Your task to perform on an android device: turn off location Image 0: 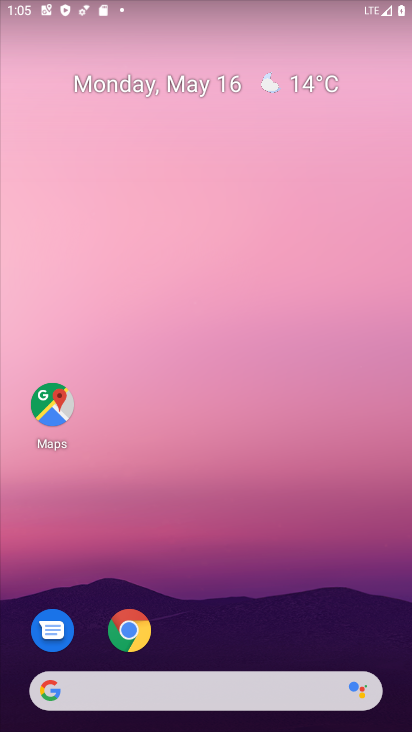
Step 0: drag from (328, 634) to (306, 79)
Your task to perform on an android device: turn off location Image 1: 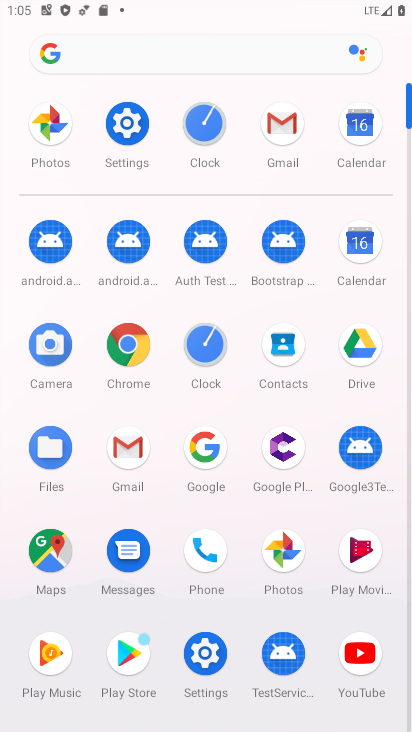
Step 1: click (120, 120)
Your task to perform on an android device: turn off location Image 2: 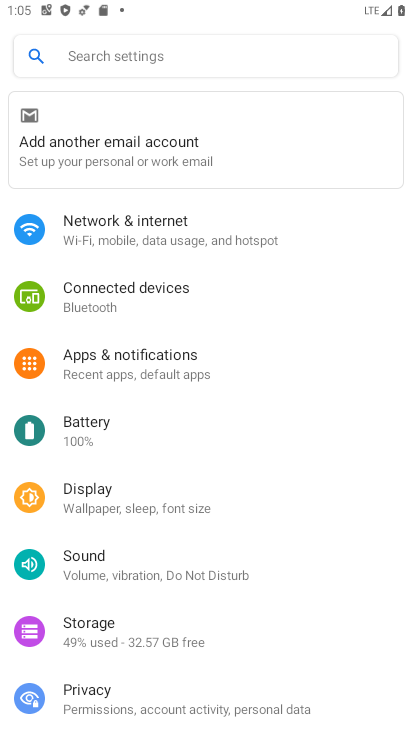
Step 2: drag from (110, 659) to (123, 428)
Your task to perform on an android device: turn off location Image 3: 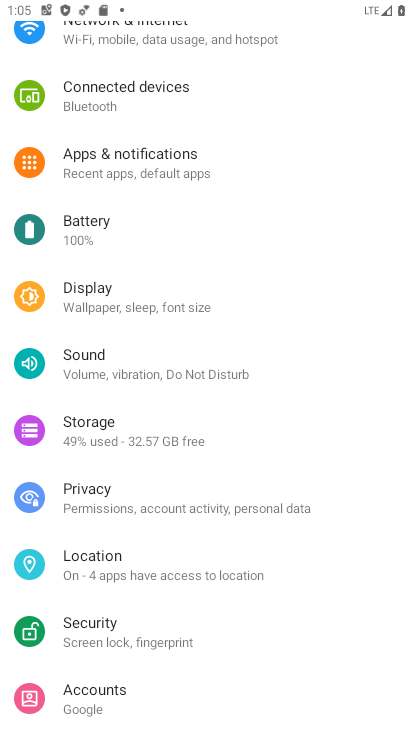
Step 3: click (103, 577)
Your task to perform on an android device: turn off location Image 4: 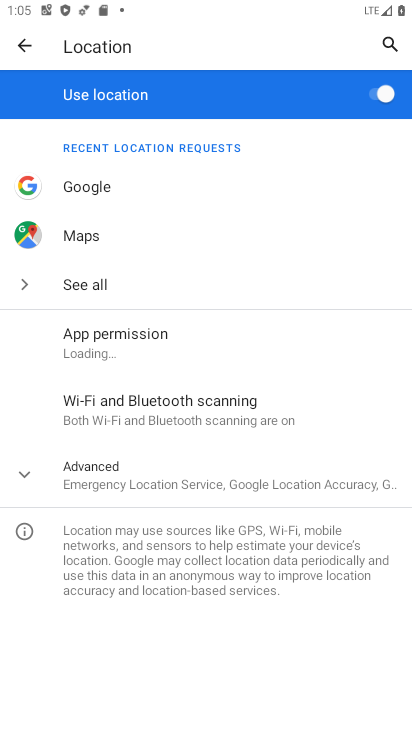
Step 4: click (387, 94)
Your task to perform on an android device: turn off location Image 5: 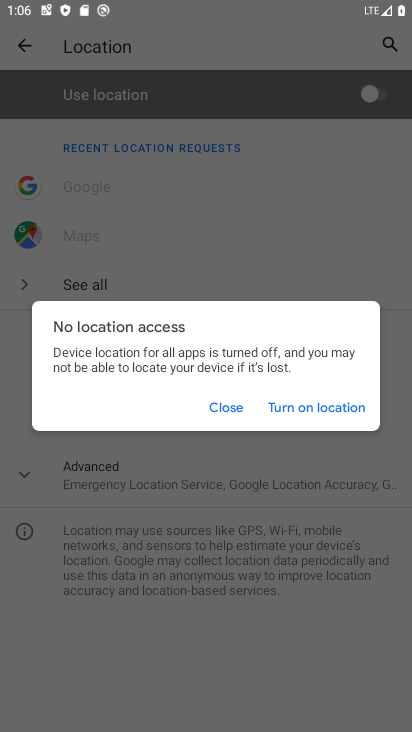
Step 5: task complete